Your task to perform on an android device: check android version Image 0: 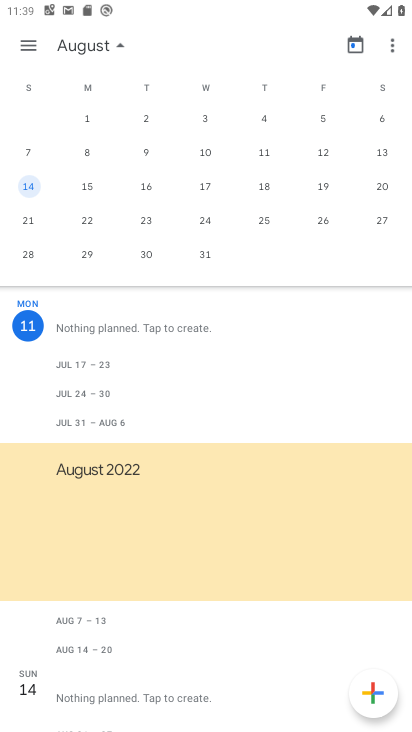
Step 0: drag from (230, 649) to (254, 465)
Your task to perform on an android device: check android version Image 1: 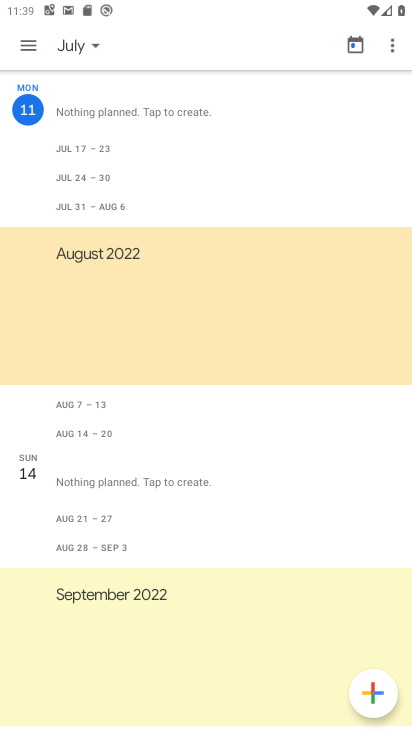
Step 1: press home button
Your task to perform on an android device: check android version Image 2: 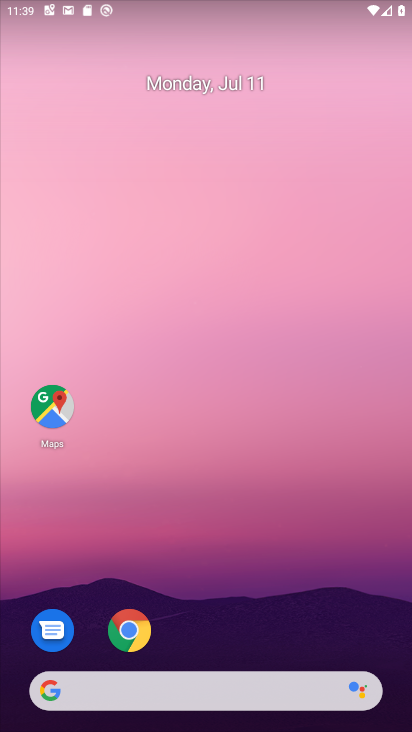
Step 2: drag from (271, 602) to (302, 75)
Your task to perform on an android device: check android version Image 3: 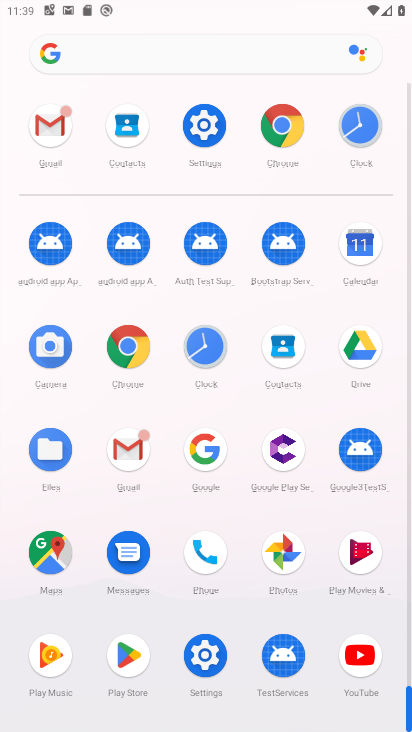
Step 3: click (206, 134)
Your task to perform on an android device: check android version Image 4: 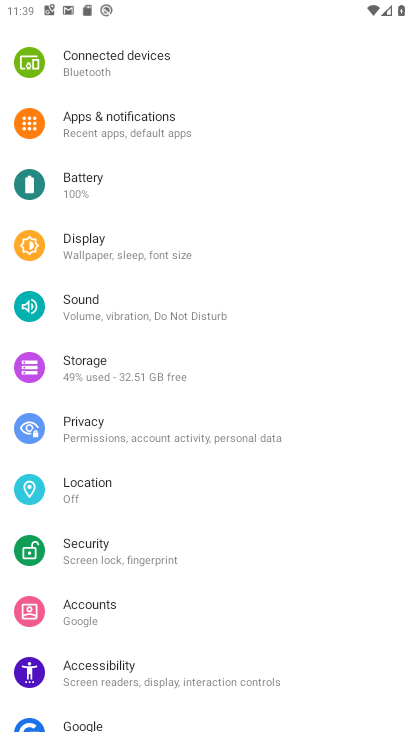
Step 4: drag from (198, 647) to (205, 289)
Your task to perform on an android device: check android version Image 5: 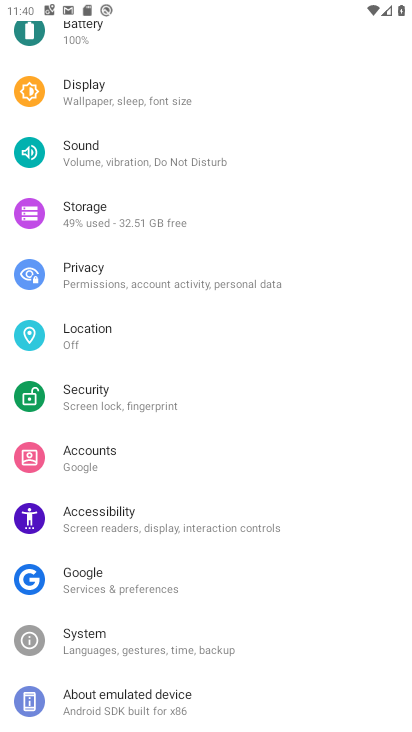
Step 5: click (185, 686)
Your task to perform on an android device: check android version Image 6: 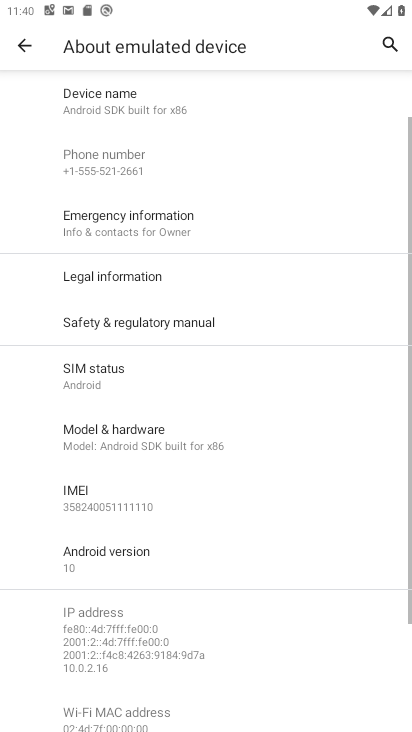
Step 6: click (110, 555)
Your task to perform on an android device: check android version Image 7: 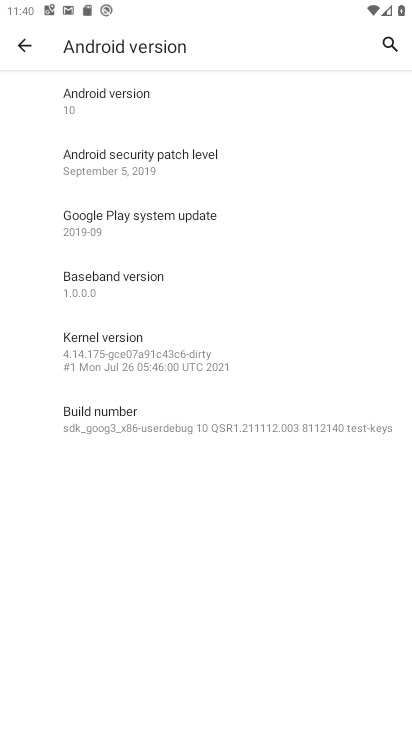
Step 7: click (153, 100)
Your task to perform on an android device: check android version Image 8: 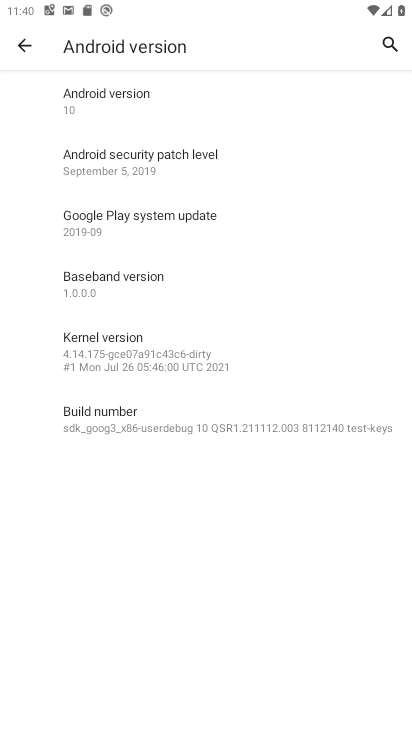
Step 8: task complete